Your task to perform on an android device: move a message to another label in the gmail app Image 0: 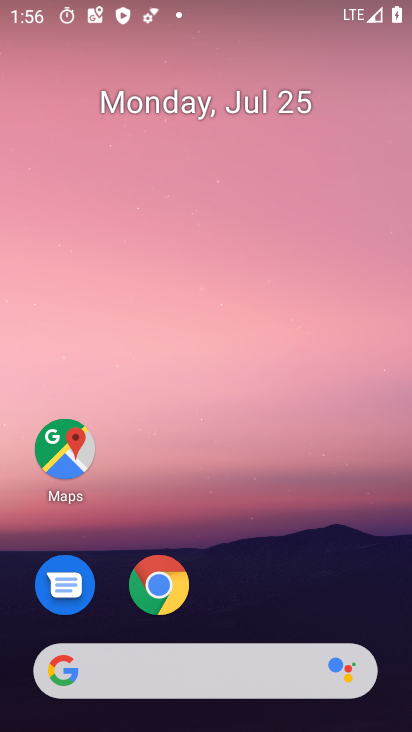
Step 0: drag from (186, 654) to (172, 283)
Your task to perform on an android device: move a message to another label in the gmail app Image 1: 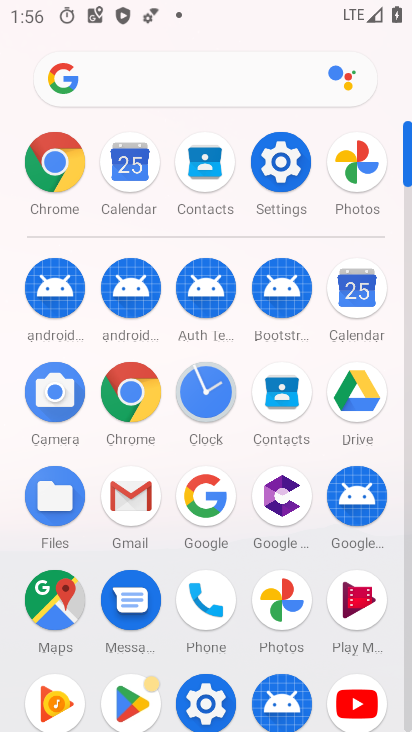
Step 1: click (156, 508)
Your task to perform on an android device: move a message to another label in the gmail app Image 2: 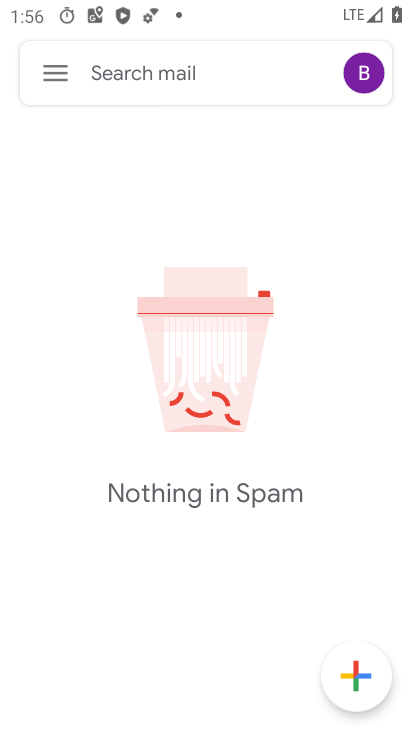
Step 2: click (65, 77)
Your task to perform on an android device: move a message to another label in the gmail app Image 3: 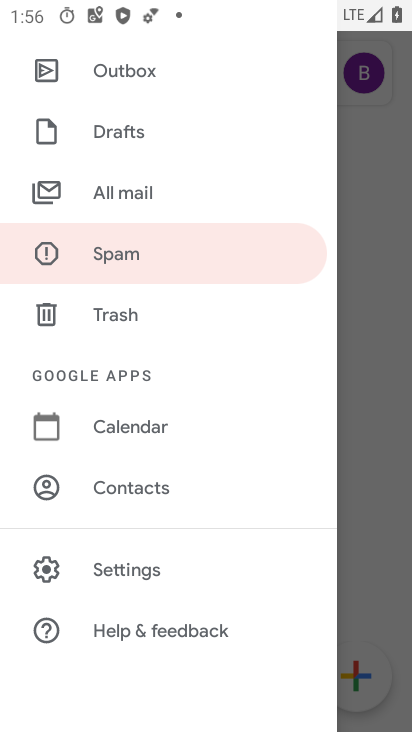
Step 3: click (143, 198)
Your task to perform on an android device: move a message to another label in the gmail app Image 4: 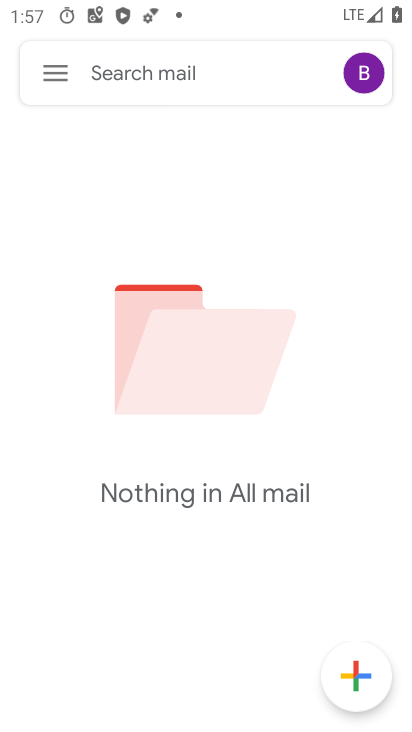
Step 4: task complete